Your task to perform on an android device: change alarm snooze length Image 0: 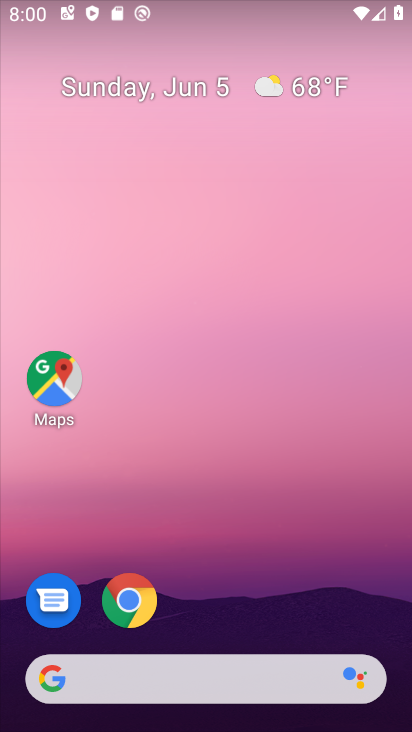
Step 0: drag from (230, 599) to (227, 0)
Your task to perform on an android device: change alarm snooze length Image 1: 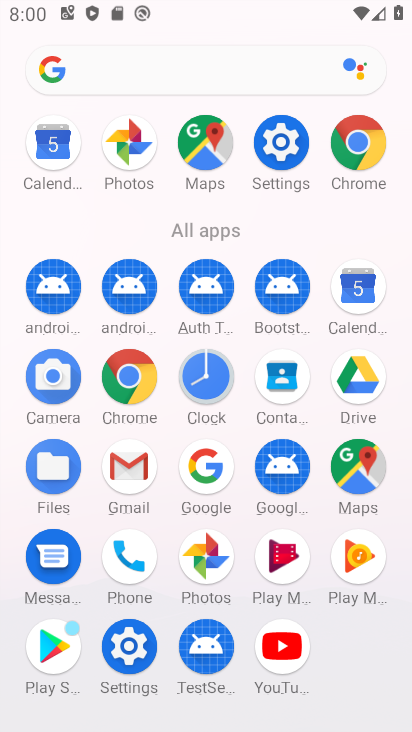
Step 1: click (214, 378)
Your task to perform on an android device: change alarm snooze length Image 2: 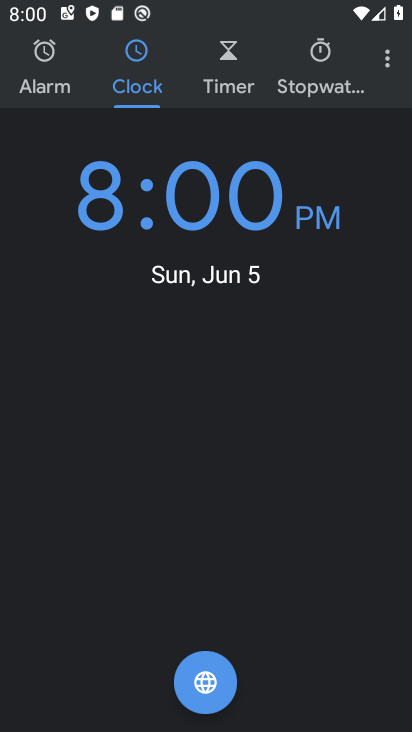
Step 2: click (388, 65)
Your task to perform on an android device: change alarm snooze length Image 3: 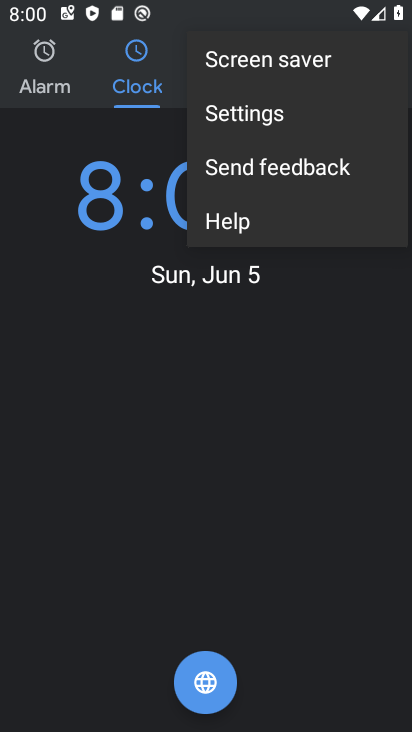
Step 3: click (344, 114)
Your task to perform on an android device: change alarm snooze length Image 4: 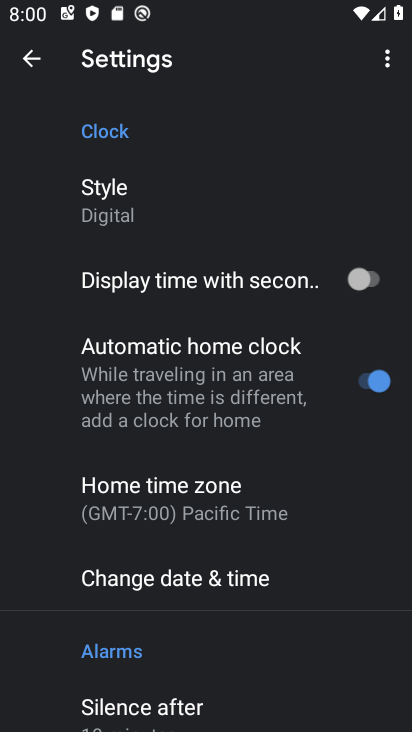
Step 4: drag from (229, 495) to (263, 80)
Your task to perform on an android device: change alarm snooze length Image 5: 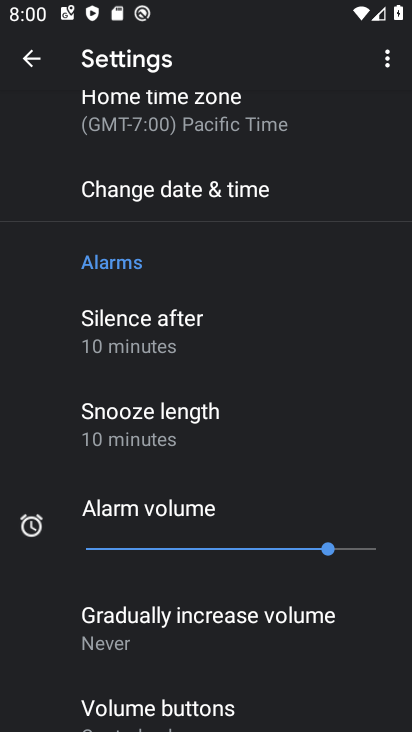
Step 5: click (193, 410)
Your task to perform on an android device: change alarm snooze length Image 6: 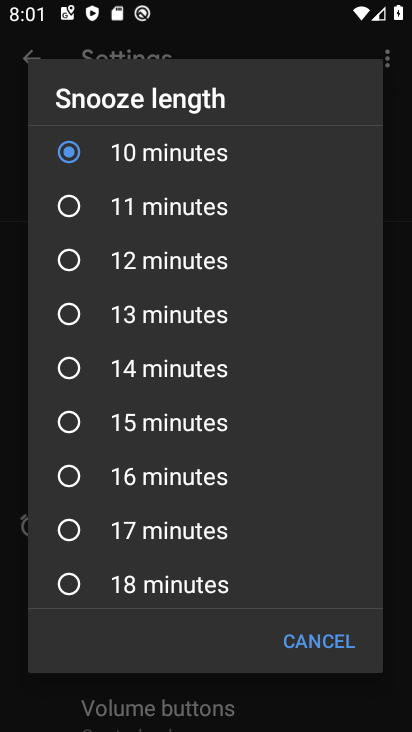
Step 6: click (80, 257)
Your task to perform on an android device: change alarm snooze length Image 7: 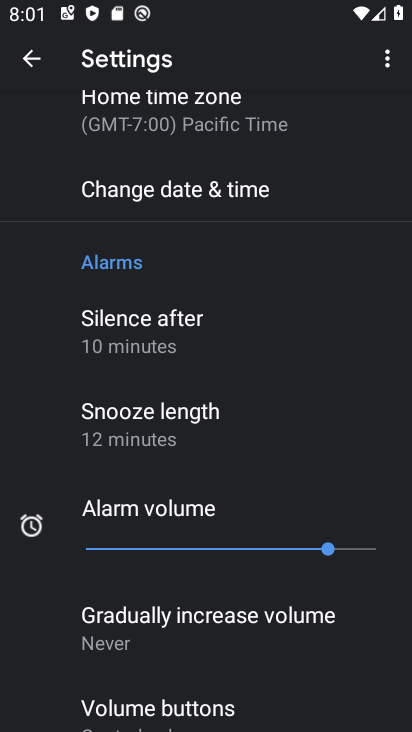
Step 7: task complete